Your task to perform on an android device: toggle show notifications on the lock screen Image 0: 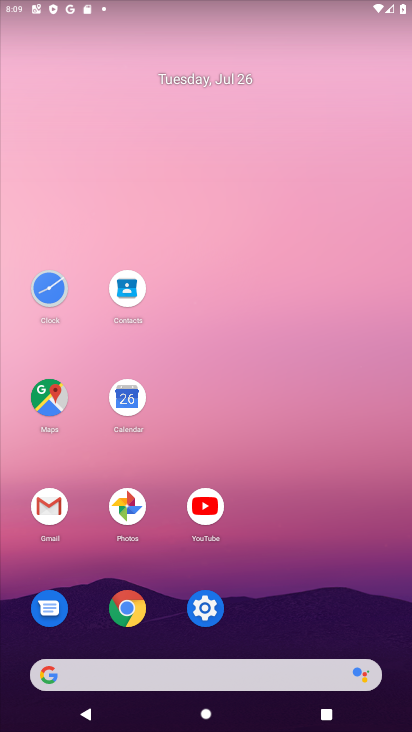
Step 0: click (205, 604)
Your task to perform on an android device: toggle show notifications on the lock screen Image 1: 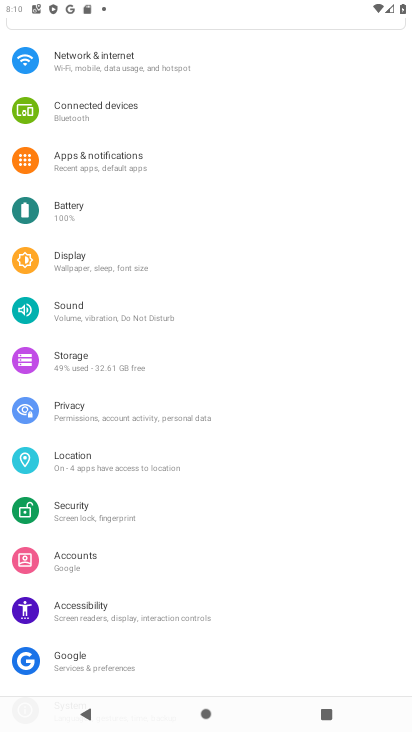
Step 1: click (68, 158)
Your task to perform on an android device: toggle show notifications on the lock screen Image 2: 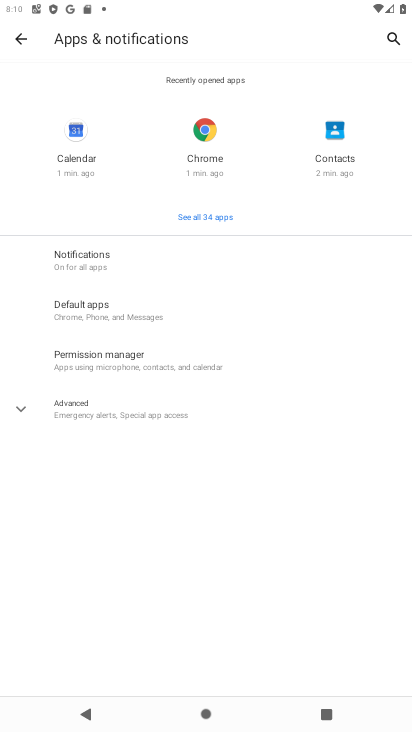
Step 2: click (78, 252)
Your task to perform on an android device: toggle show notifications on the lock screen Image 3: 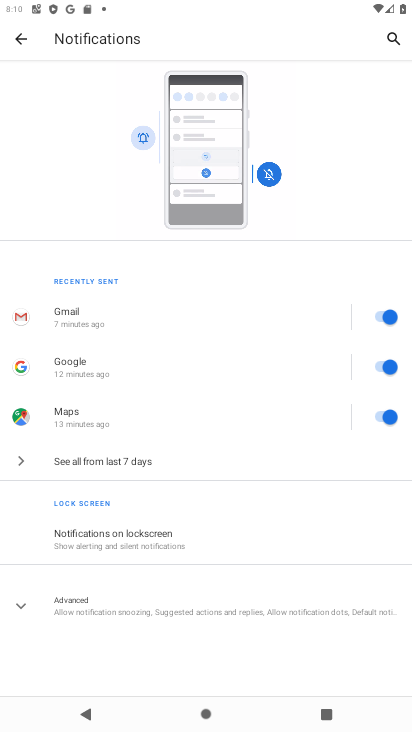
Step 3: click (127, 532)
Your task to perform on an android device: toggle show notifications on the lock screen Image 4: 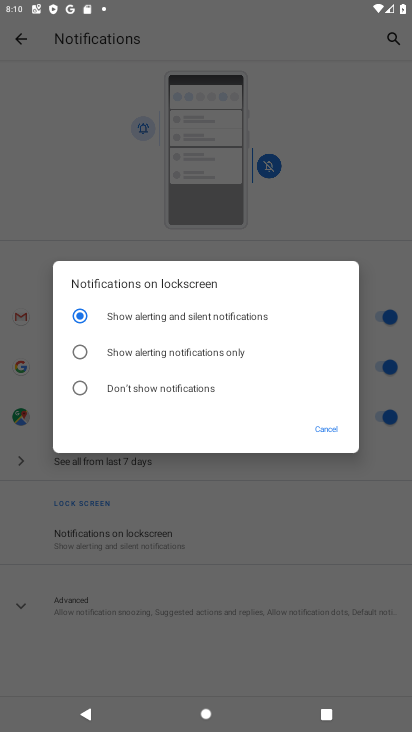
Step 4: click (83, 396)
Your task to perform on an android device: toggle show notifications on the lock screen Image 5: 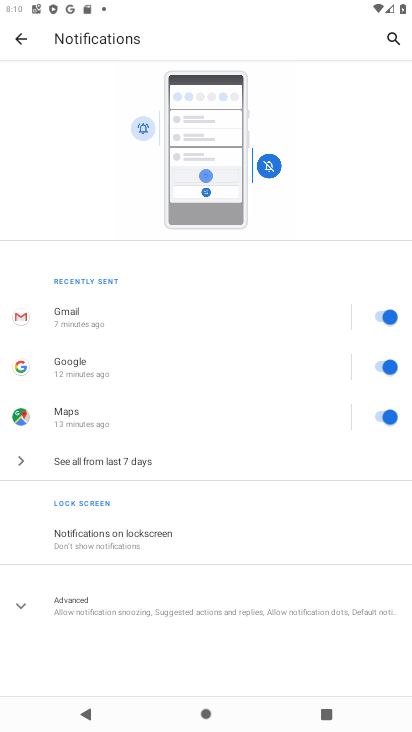
Step 5: task complete